Your task to perform on an android device: change the clock display to digital Image 0: 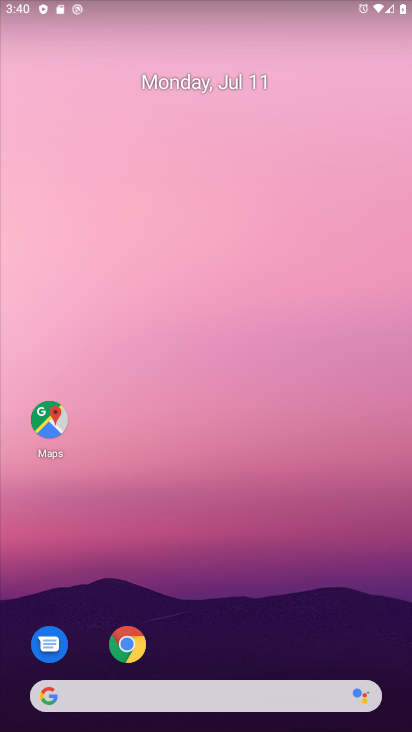
Step 0: drag from (153, 672) to (233, 5)
Your task to perform on an android device: change the clock display to digital Image 1: 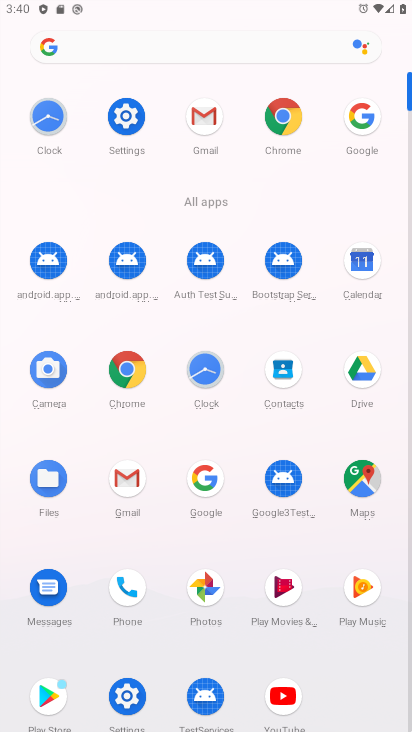
Step 1: click (210, 383)
Your task to perform on an android device: change the clock display to digital Image 2: 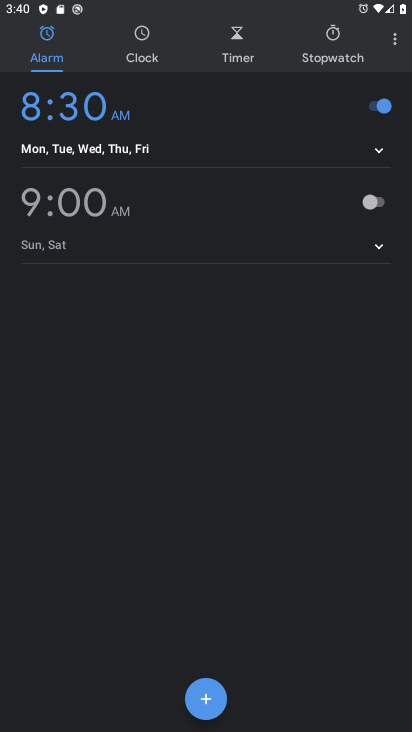
Step 2: click (394, 42)
Your task to perform on an android device: change the clock display to digital Image 3: 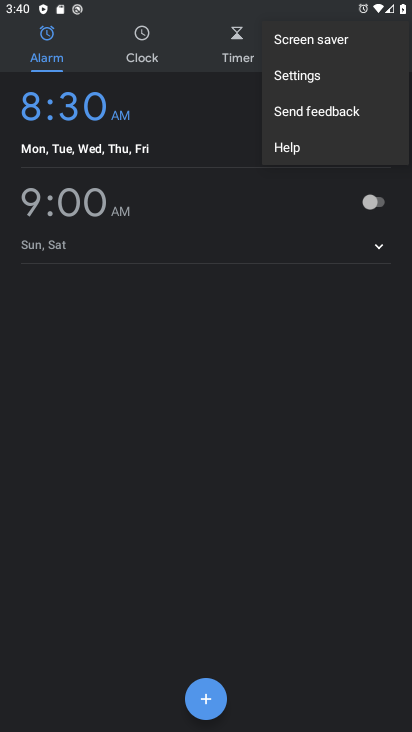
Step 3: click (307, 79)
Your task to perform on an android device: change the clock display to digital Image 4: 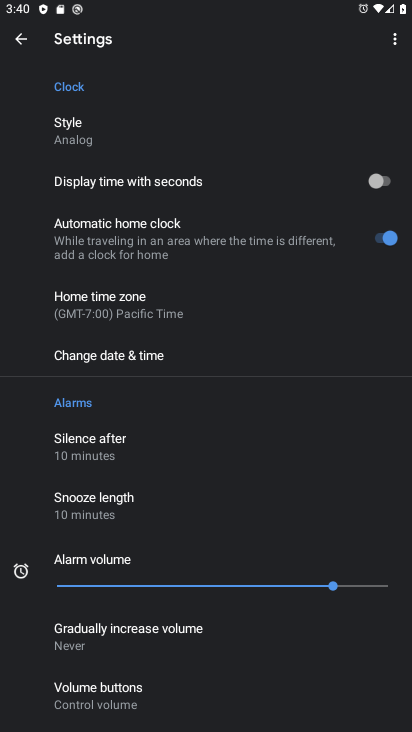
Step 4: click (85, 127)
Your task to perform on an android device: change the clock display to digital Image 5: 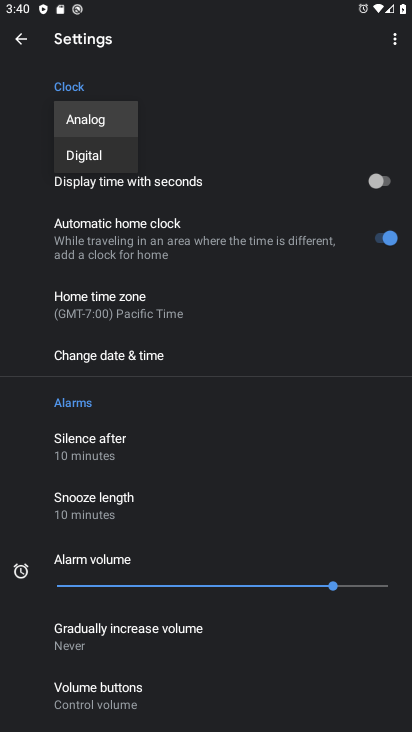
Step 5: click (94, 151)
Your task to perform on an android device: change the clock display to digital Image 6: 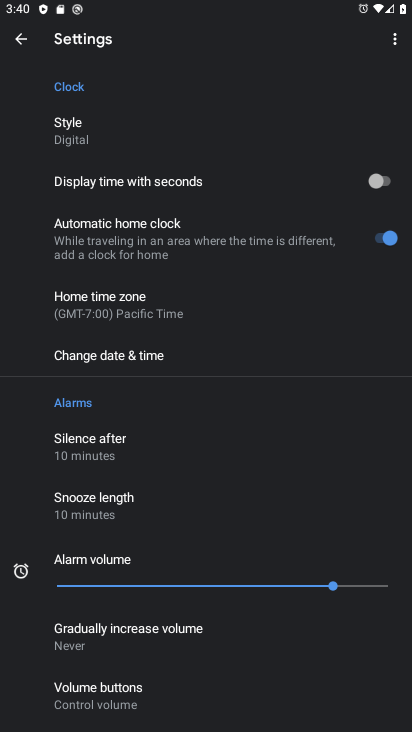
Step 6: task complete